Your task to perform on an android device: turn off airplane mode Image 0: 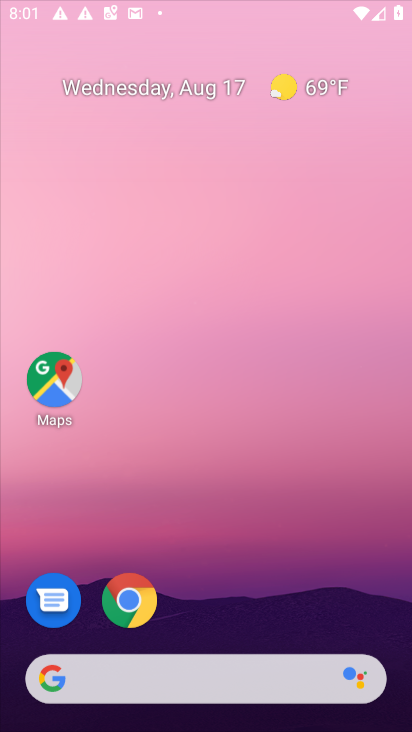
Step 0: press home button
Your task to perform on an android device: turn off airplane mode Image 1: 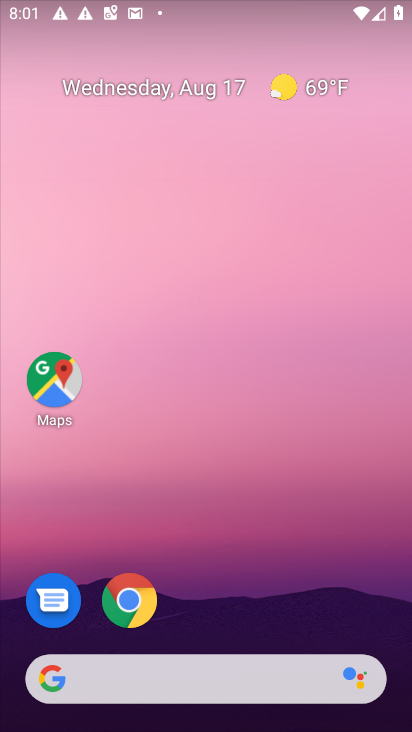
Step 1: task complete